Your task to perform on an android device: check out phone information Image 0: 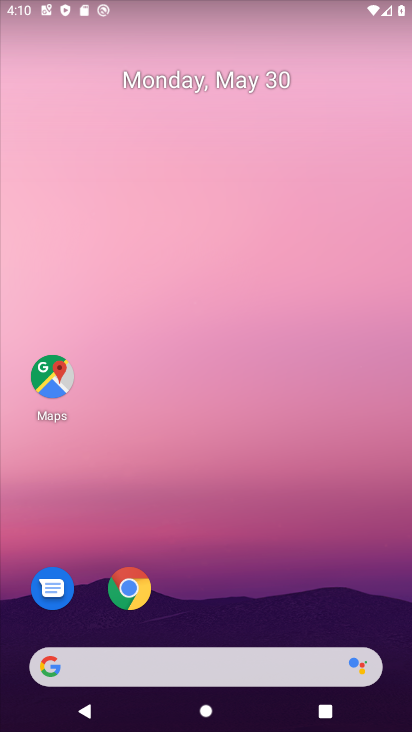
Step 0: press home button
Your task to perform on an android device: check out phone information Image 1: 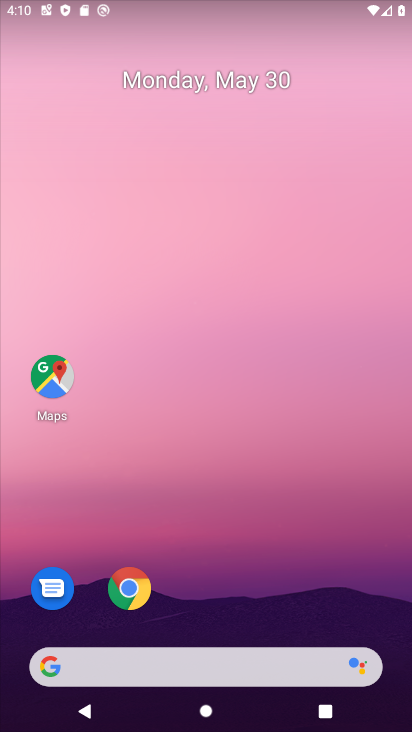
Step 1: drag from (277, 530) to (246, 185)
Your task to perform on an android device: check out phone information Image 2: 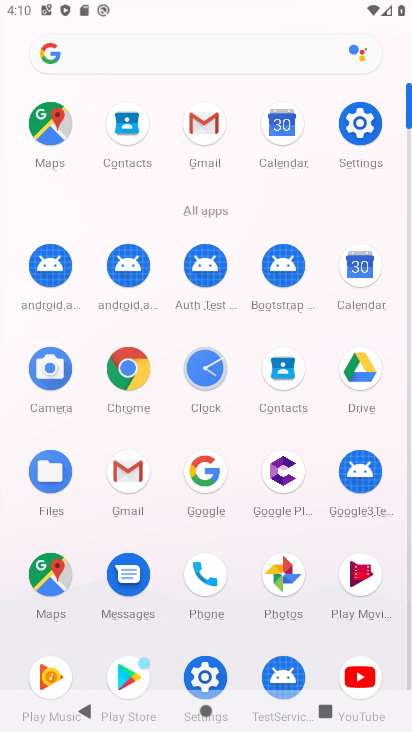
Step 2: click (363, 128)
Your task to perform on an android device: check out phone information Image 3: 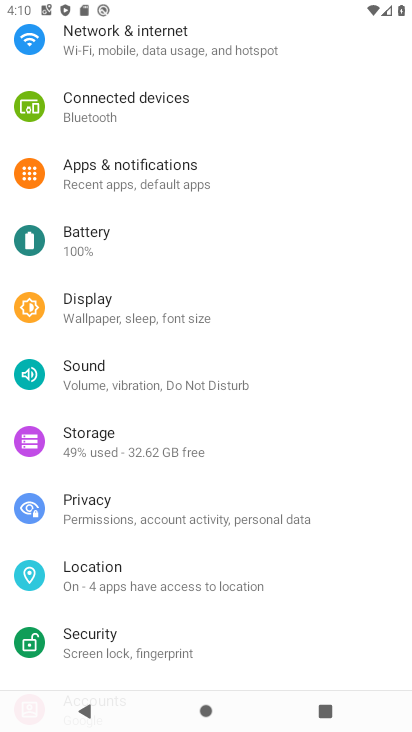
Step 3: drag from (323, 637) to (316, 70)
Your task to perform on an android device: check out phone information Image 4: 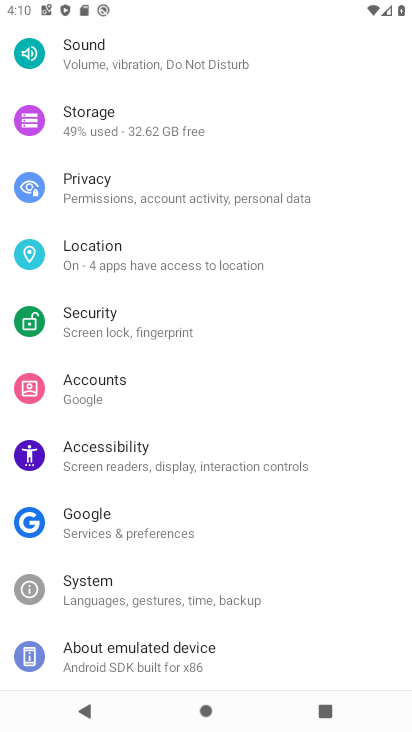
Step 4: click (163, 655)
Your task to perform on an android device: check out phone information Image 5: 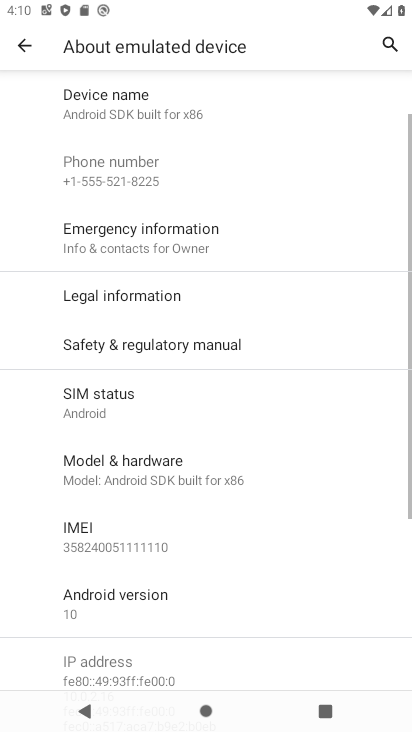
Step 5: task complete